Your task to perform on an android device: Open CNN.com Image 0: 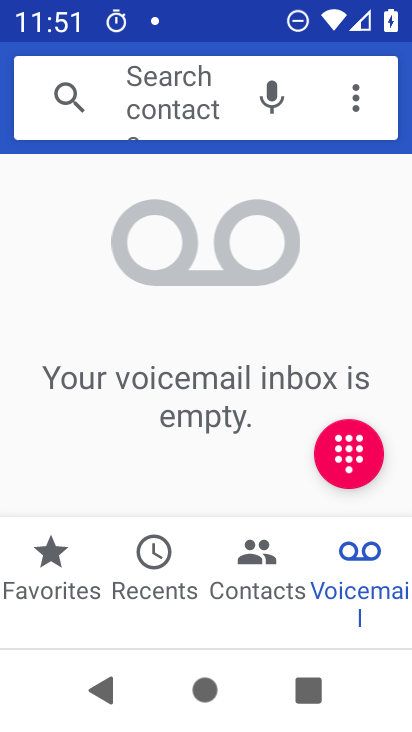
Step 0: press back button
Your task to perform on an android device: Open CNN.com Image 1: 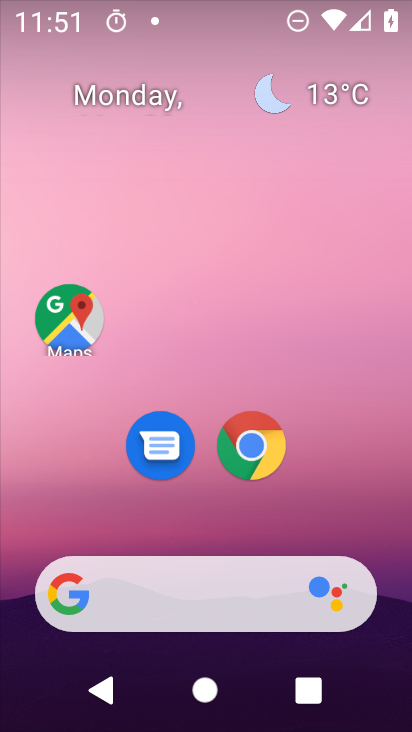
Step 1: click (245, 438)
Your task to perform on an android device: Open CNN.com Image 2: 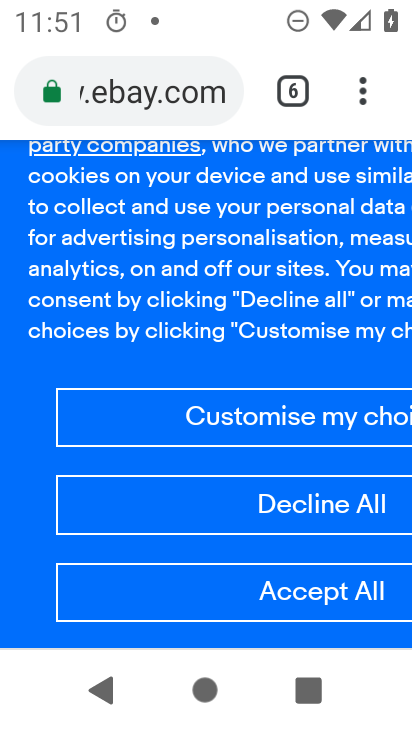
Step 2: click (282, 80)
Your task to perform on an android device: Open CNN.com Image 3: 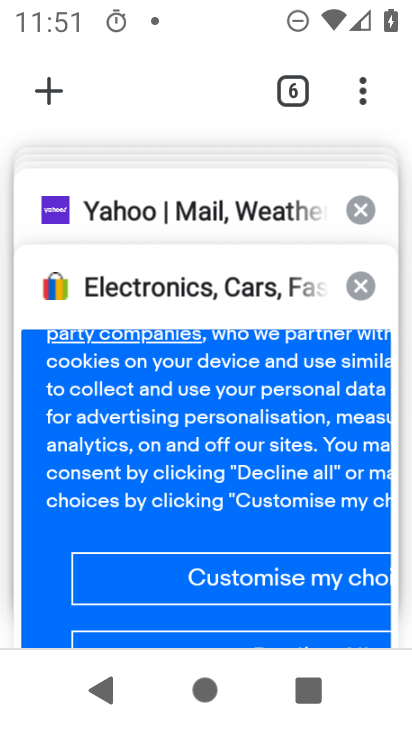
Step 3: click (43, 81)
Your task to perform on an android device: Open CNN.com Image 4: 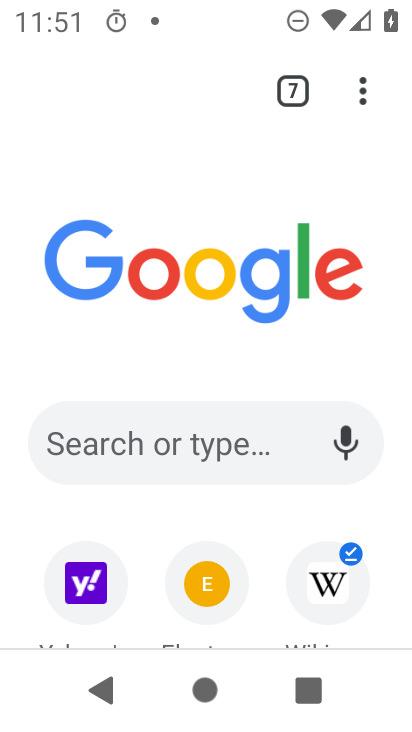
Step 4: drag from (178, 540) to (286, 63)
Your task to perform on an android device: Open CNN.com Image 5: 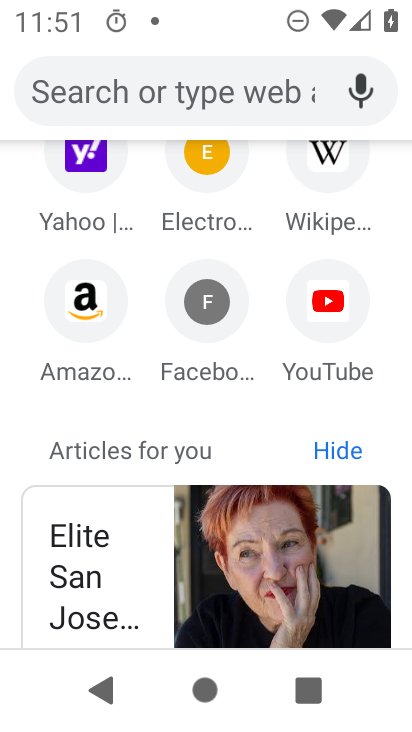
Step 5: drag from (244, 303) to (234, 610)
Your task to perform on an android device: Open CNN.com Image 6: 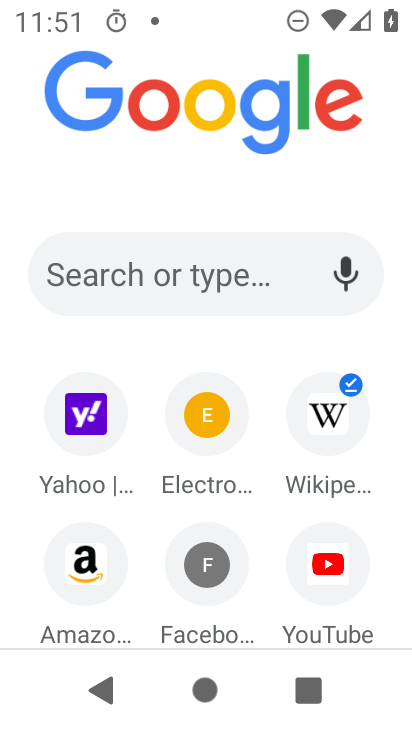
Step 6: click (143, 260)
Your task to perform on an android device: Open CNN.com Image 7: 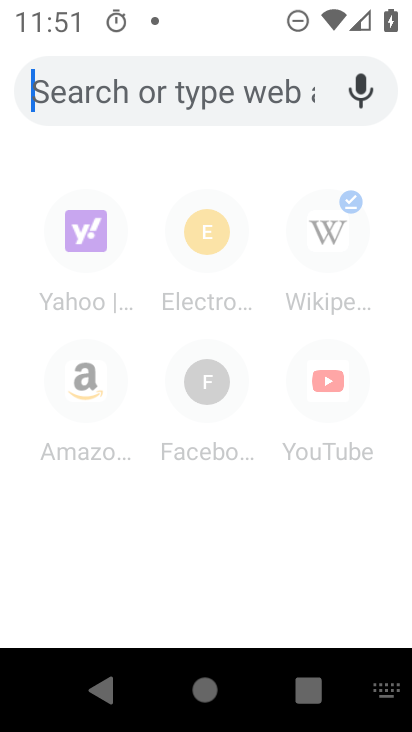
Step 7: type "cnn.com"
Your task to perform on an android device: Open CNN.com Image 8: 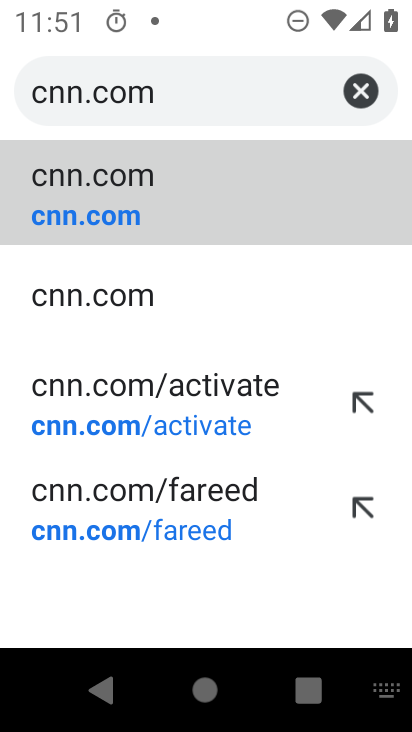
Step 8: click (236, 188)
Your task to perform on an android device: Open CNN.com Image 9: 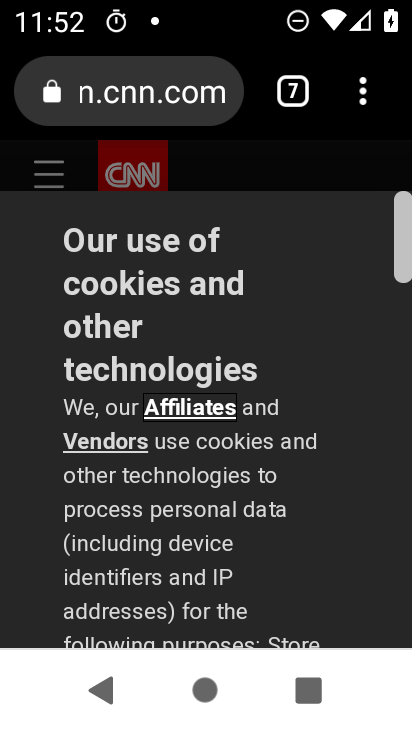
Step 9: task complete